Your task to perform on an android device: turn off smart reply in the gmail app Image 0: 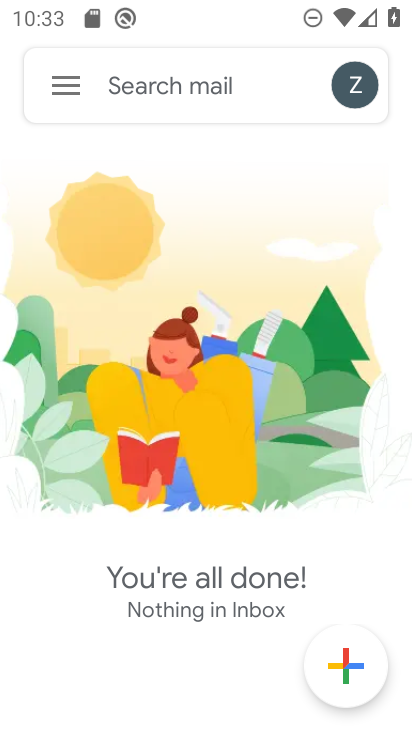
Step 0: click (67, 84)
Your task to perform on an android device: turn off smart reply in the gmail app Image 1: 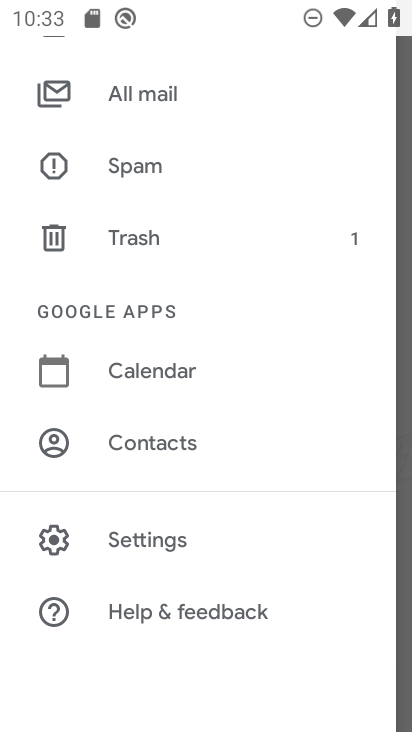
Step 1: click (223, 558)
Your task to perform on an android device: turn off smart reply in the gmail app Image 2: 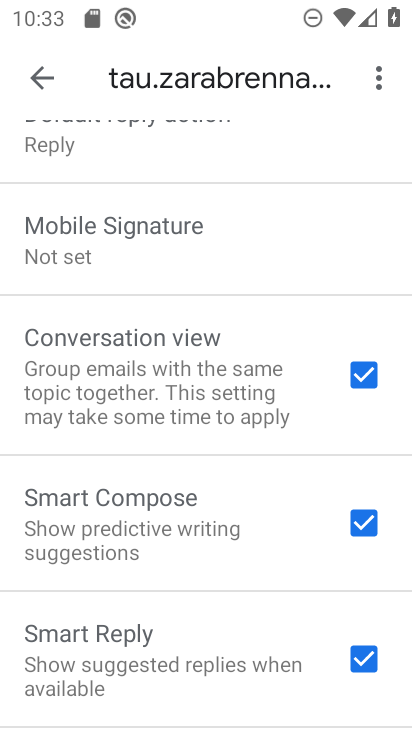
Step 2: drag from (265, 234) to (265, 346)
Your task to perform on an android device: turn off smart reply in the gmail app Image 3: 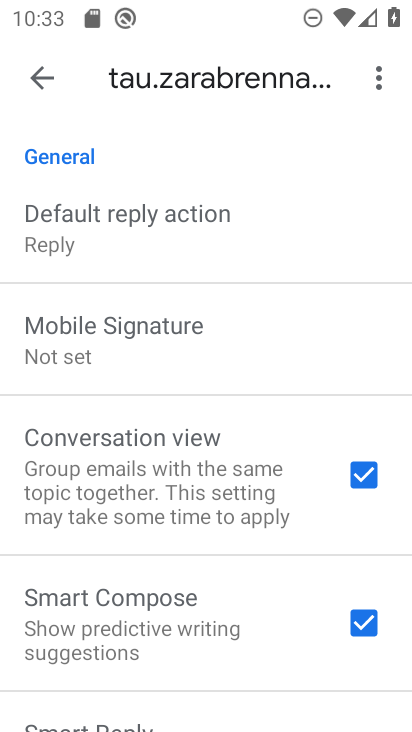
Step 3: drag from (282, 201) to (269, 297)
Your task to perform on an android device: turn off smart reply in the gmail app Image 4: 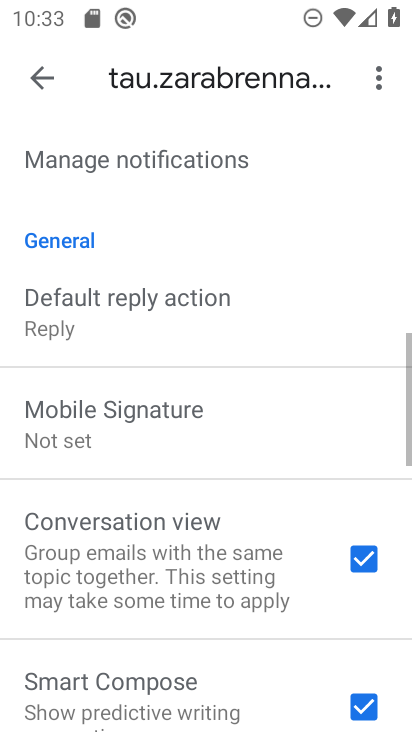
Step 4: drag from (288, 160) to (285, 319)
Your task to perform on an android device: turn off smart reply in the gmail app Image 5: 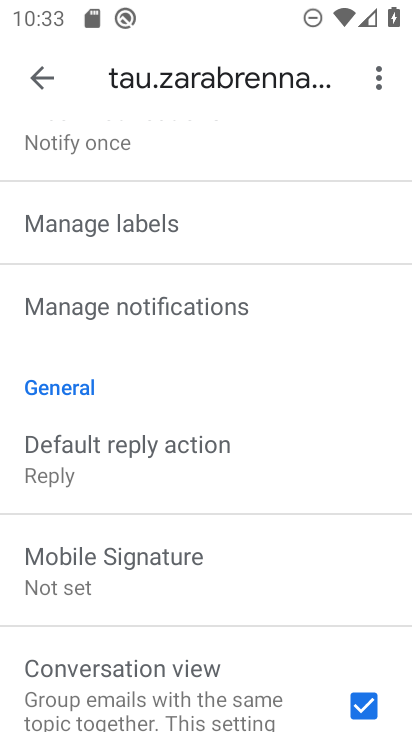
Step 5: drag from (290, 188) to (311, 310)
Your task to perform on an android device: turn off smart reply in the gmail app Image 6: 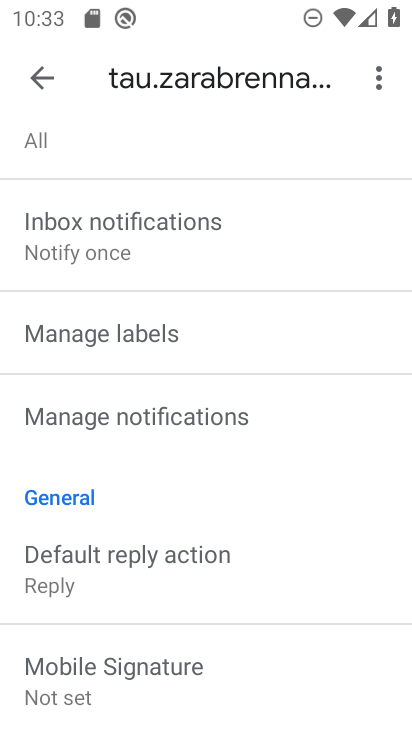
Step 6: drag from (311, 259) to (323, 375)
Your task to perform on an android device: turn off smart reply in the gmail app Image 7: 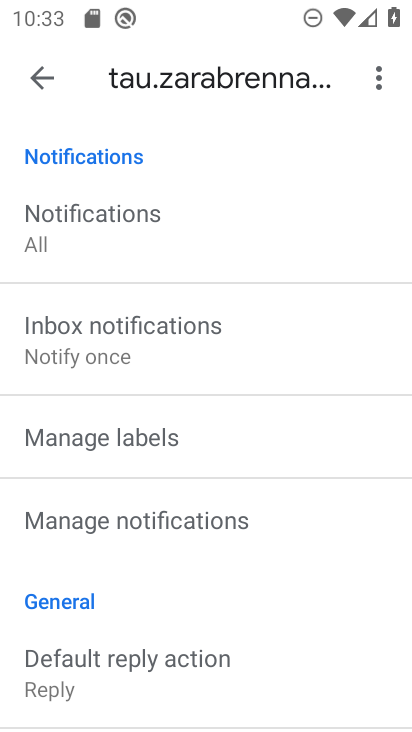
Step 7: drag from (310, 245) to (317, 346)
Your task to perform on an android device: turn off smart reply in the gmail app Image 8: 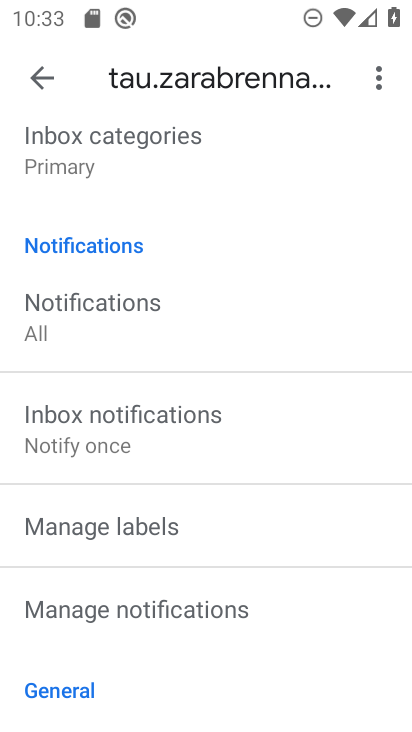
Step 8: drag from (312, 436) to (333, 336)
Your task to perform on an android device: turn off smart reply in the gmail app Image 9: 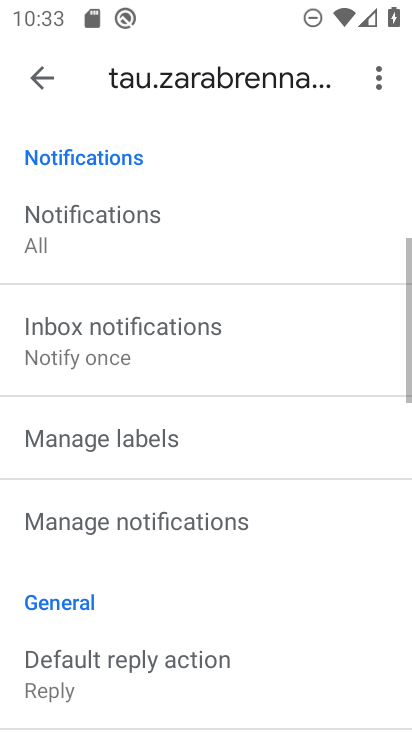
Step 9: drag from (332, 476) to (330, 306)
Your task to perform on an android device: turn off smart reply in the gmail app Image 10: 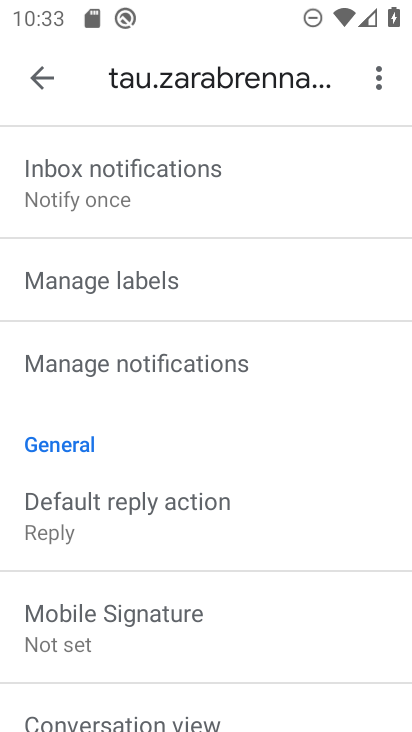
Step 10: drag from (329, 490) to (326, 350)
Your task to perform on an android device: turn off smart reply in the gmail app Image 11: 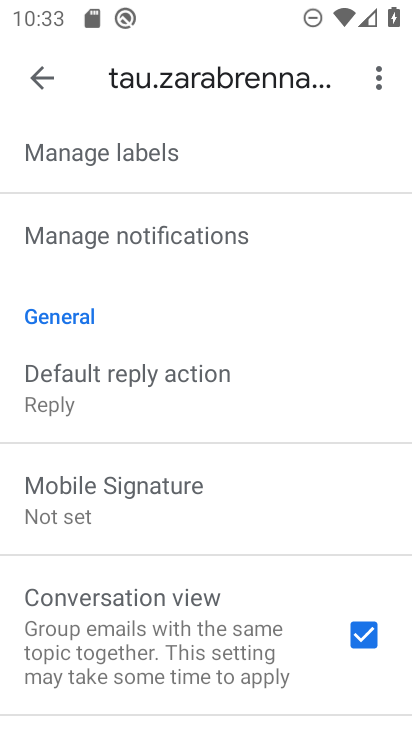
Step 11: drag from (315, 460) to (318, 295)
Your task to perform on an android device: turn off smart reply in the gmail app Image 12: 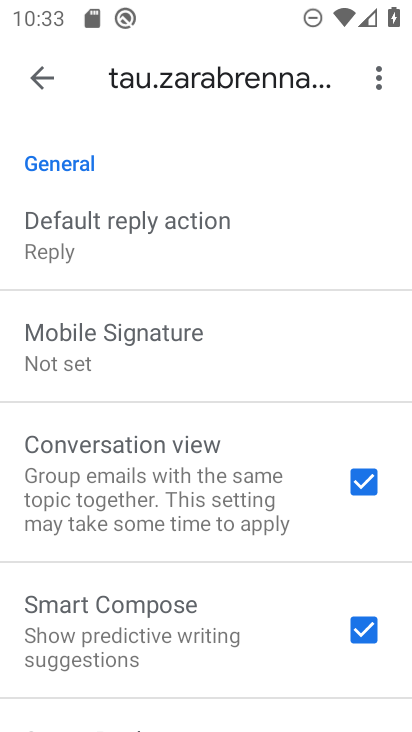
Step 12: drag from (300, 553) to (334, 336)
Your task to perform on an android device: turn off smart reply in the gmail app Image 13: 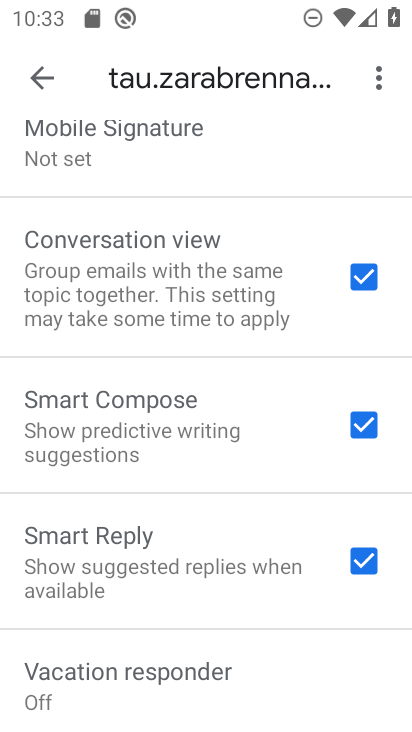
Step 13: click (372, 562)
Your task to perform on an android device: turn off smart reply in the gmail app Image 14: 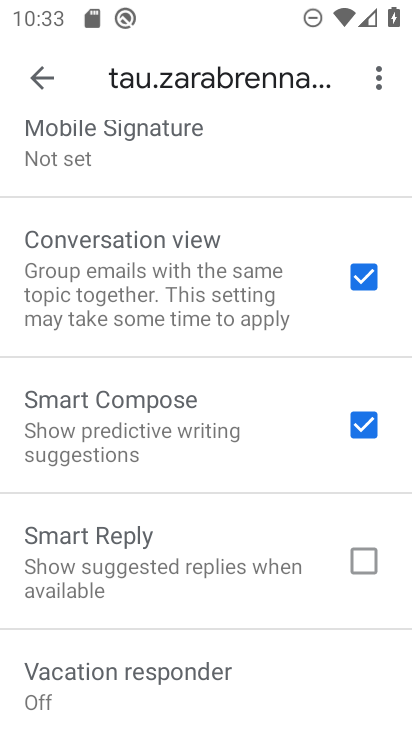
Step 14: task complete